Your task to perform on an android device: What's the weather going to be this weekend? Image 0: 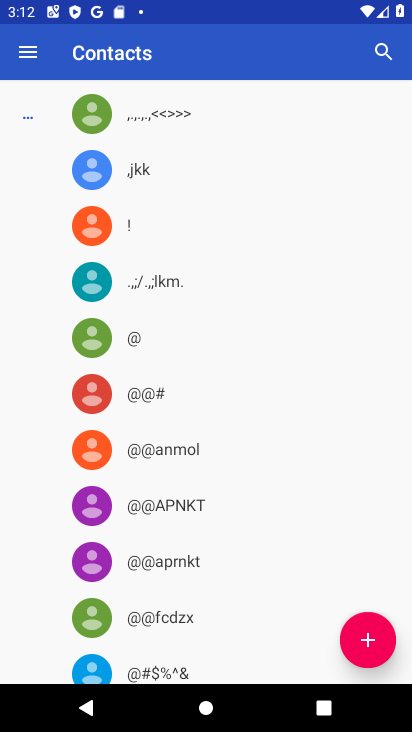
Step 0: press home button
Your task to perform on an android device: What's the weather going to be this weekend? Image 1: 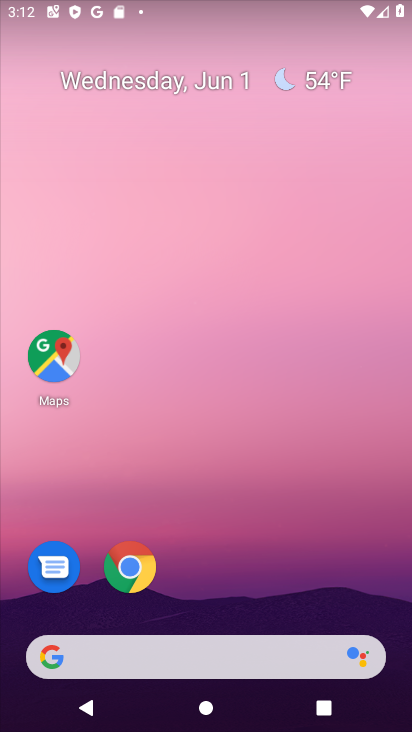
Step 1: drag from (0, 260) to (403, 221)
Your task to perform on an android device: What's the weather going to be this weekend? Image 2: 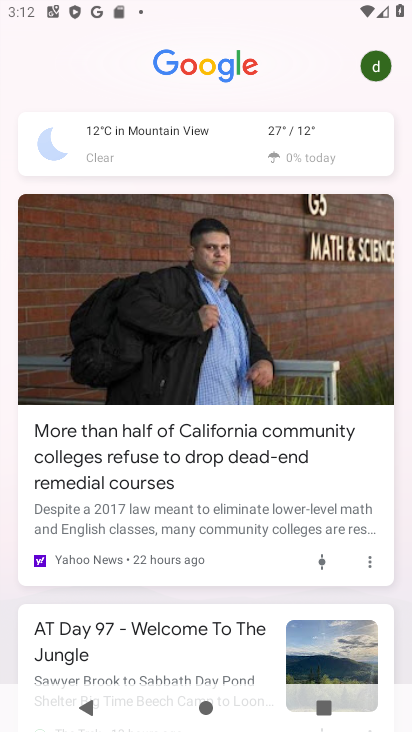
Step 2: click (256, 158)
Your task to perform on an android device: What's the weather going to be this weekend? Image 3: 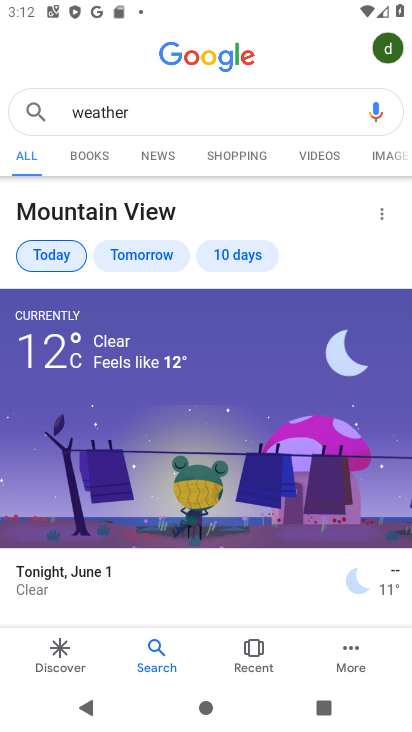
Step 3: drag from (295, 625) to (404, 281)
Your task to perform on an android device: What's the weather going to be this weekend? Image 4: 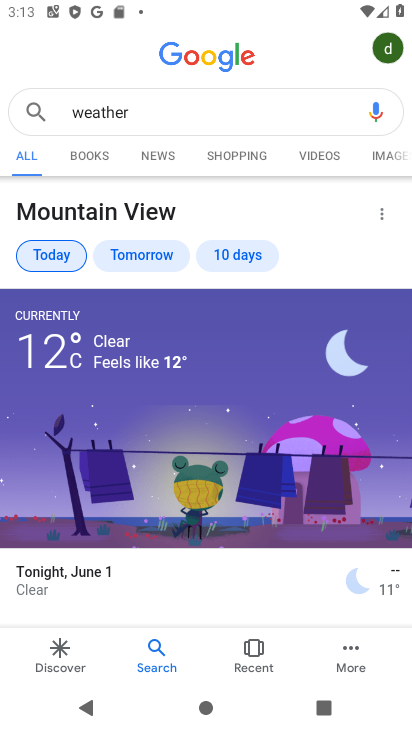
Step 4: drag from (181, 588) to (245, 306)
Your task to perform on an android device: What's the weather going to be this weekend? Image 5: 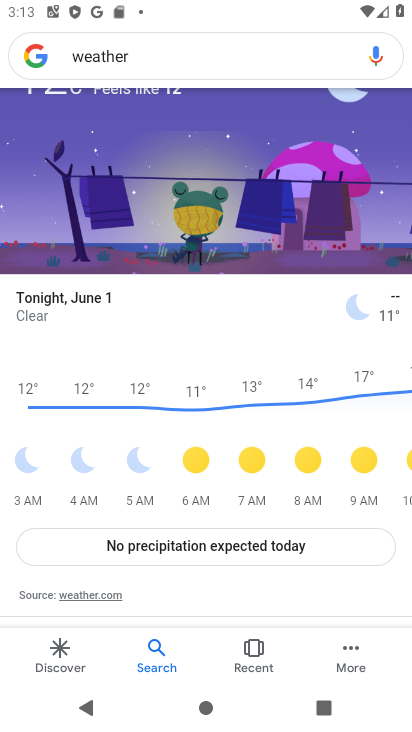
Step 5: drag from (159, 602) to (230, 173)
Your task to perform on an android device: What's the weather going to be this weekend? Image 6: 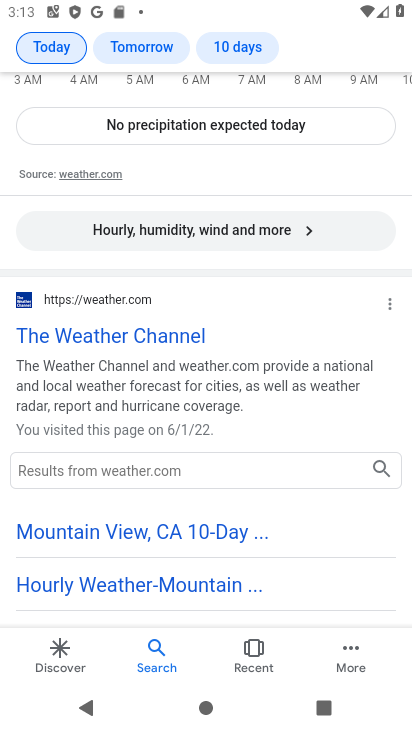
Step 6: click (179, 340)
Your task to perform on an android device: What's the weather going to be this weekend? Image 7: 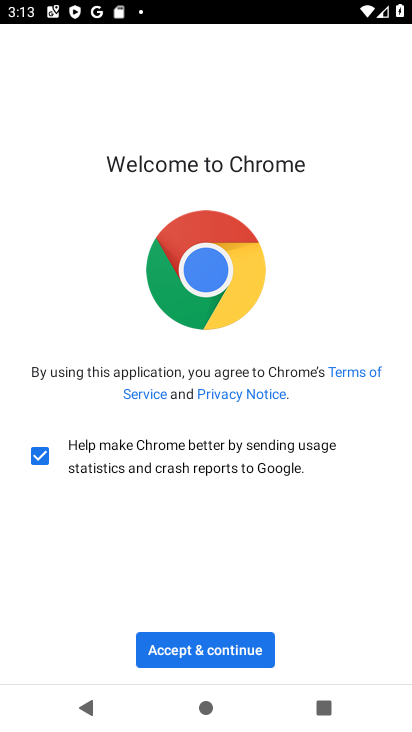
Step 7: click (188, 648)
Your task to perform on an android device: What's the weather going to be this weekend? Image 8: 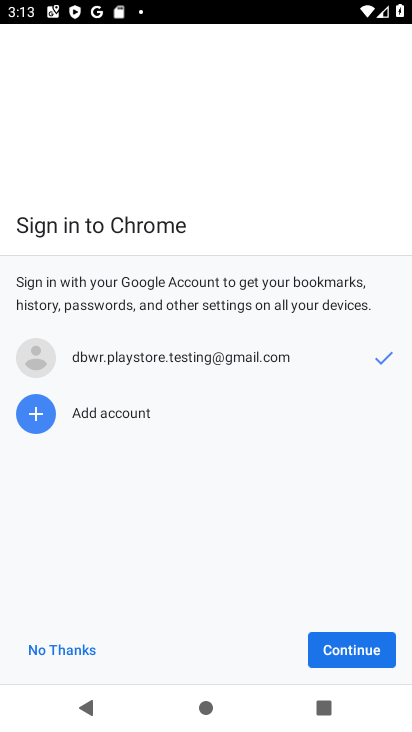
Step 8: click (373, 640)
Your task to perform on an android device: What's the weather going to be this weekend? Image 9: 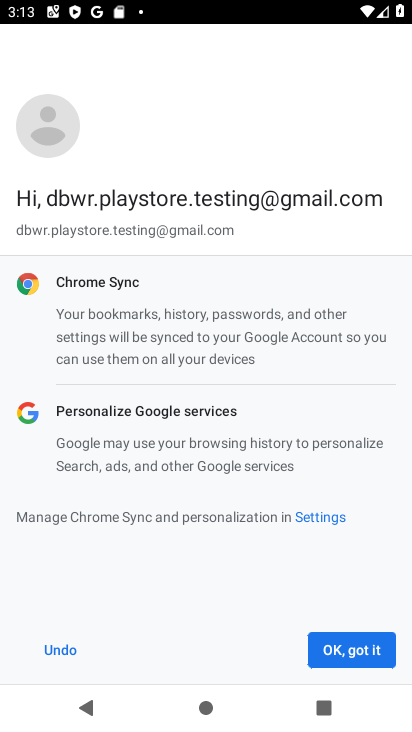
Step 9: click (366, 646)
Your task to perform on an android device: What's the weather going to be this weekend? Image 10: 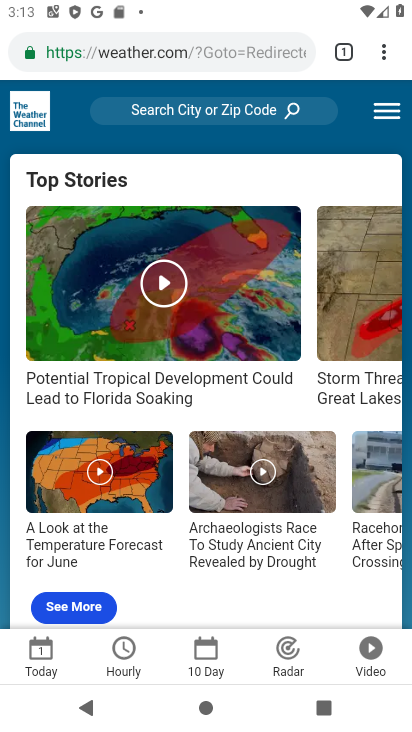
Step 10: click (211, 638)
Your task to perform on an android device: What's the weather going to be this weekend? Image 11: 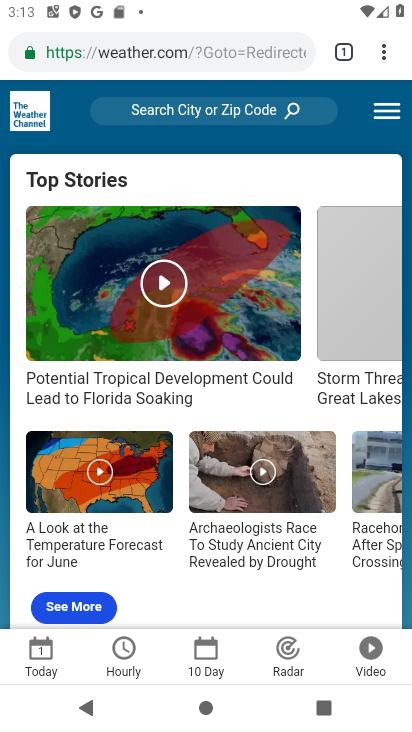
Step 11: click (200, 655)
Your task to perform on an android device: What's the weather going to be this weekend? Image 12: 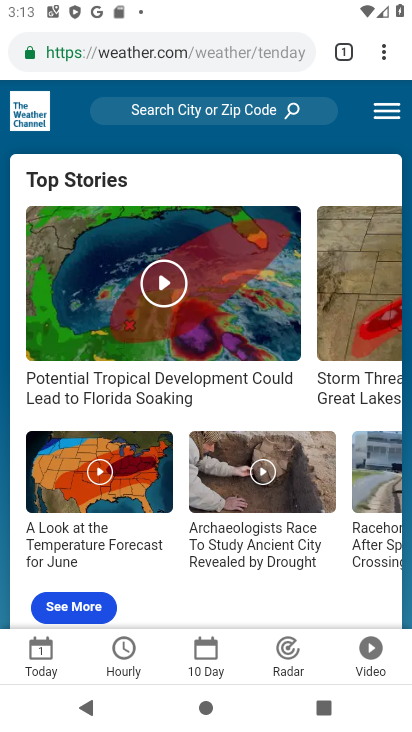
Step 12: click (203, 657)
Your task to perform on an android device: What's the weather going to be this weekend? Image 13: 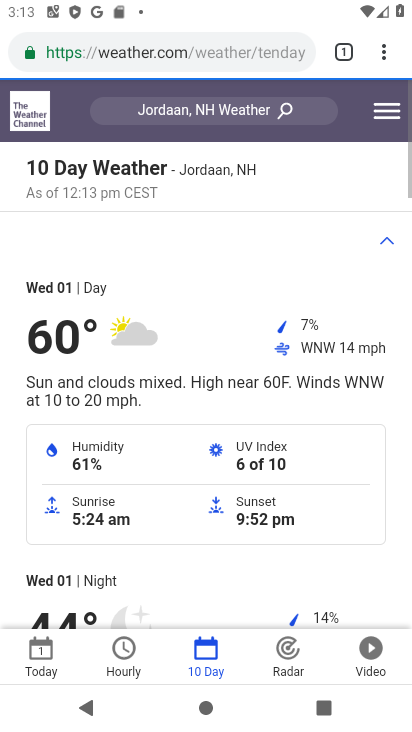
Step 13: task complete